Your task to perform on an android device: open a new tab in the chrome app Image 0: 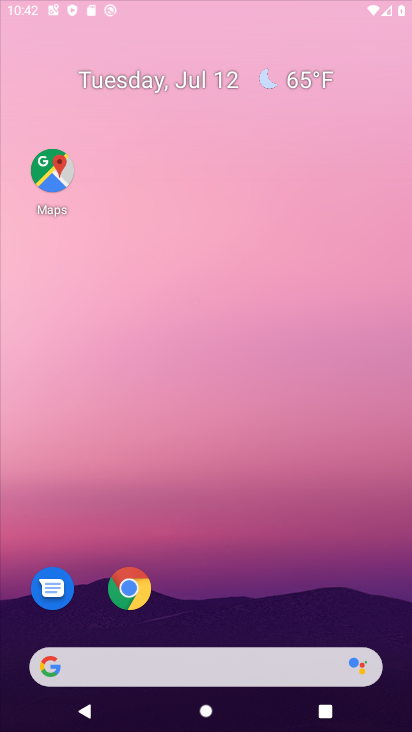
Step 0: drag from (39, 706) to (145, 150)
Your task to perform on an android device: open a new tab in the chrome app Image 1: 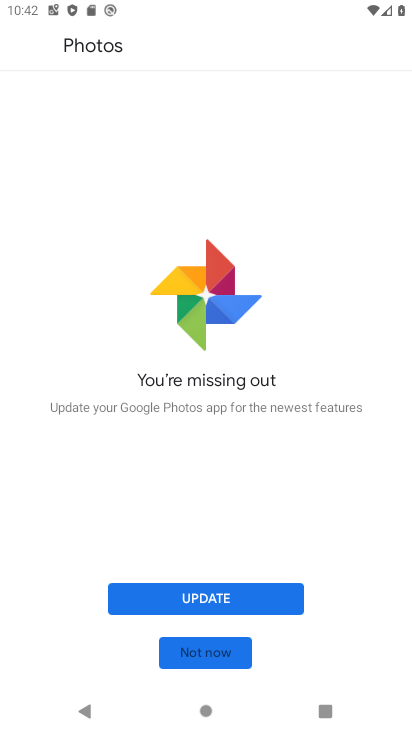
Step 1: press home button
Your task to perform on an android device: open a new tab in the chrome app Image 2: 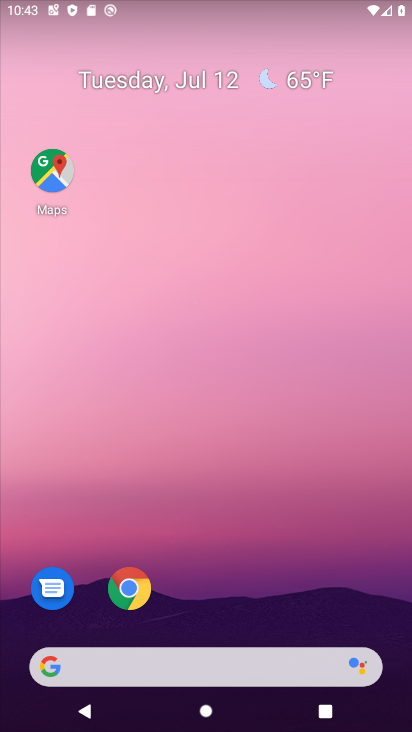
Step 2: click (136, 601)
Your task to perform on an android device: open a new tab in the chrome app Image 3: 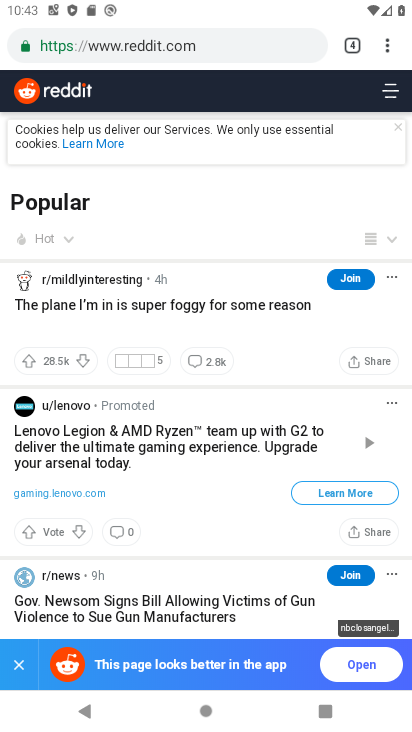
Step 3: click (350, 46)
Your task to perform on an android device: open a new tab in the chrome app Image 4: 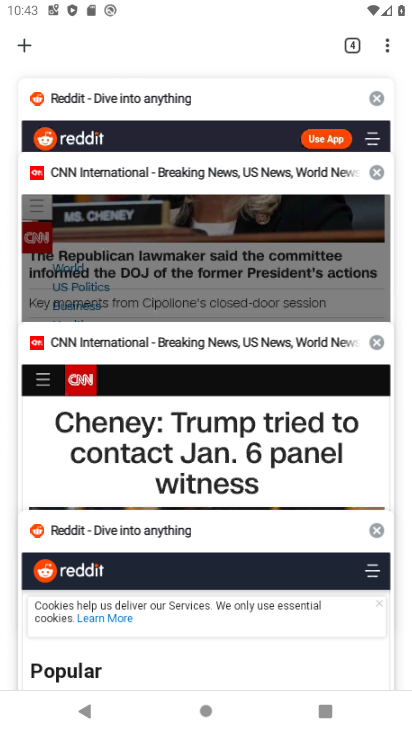
Step 4: click (397, 40)
Your task to perform on an android device: open a new tab in the chrome app Image 5: 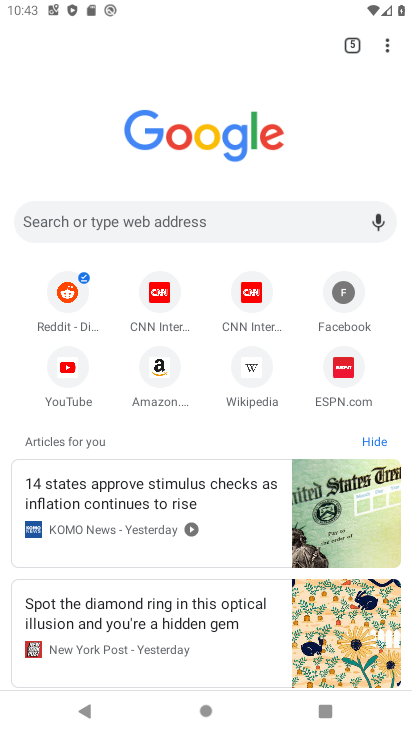
Step 5: click (102, 222)
Your task to perform on an android device: open a new tab in the chrome app Image 6: 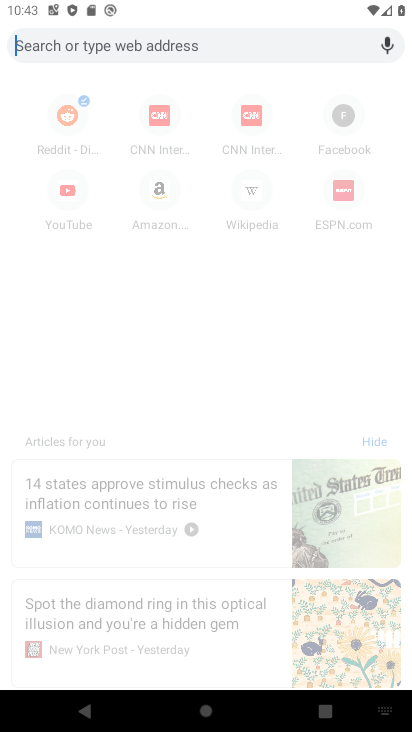
Step 6: task complete